Your task to perform on an android device: Open Wikipedia Image 0: 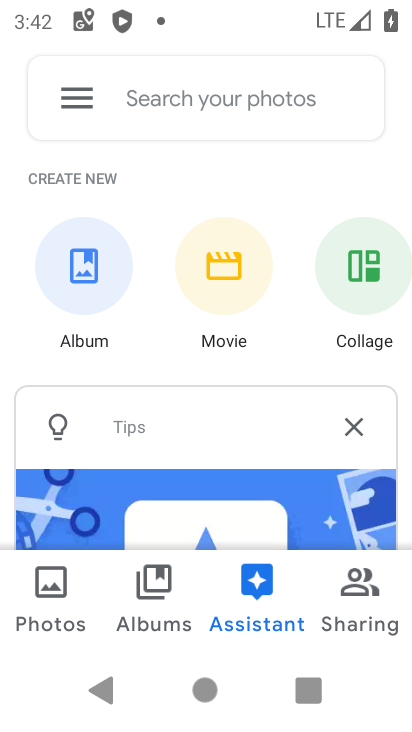
Step 0: press home button
Your task to perform on an android device: Open Wikipedia Image 1: 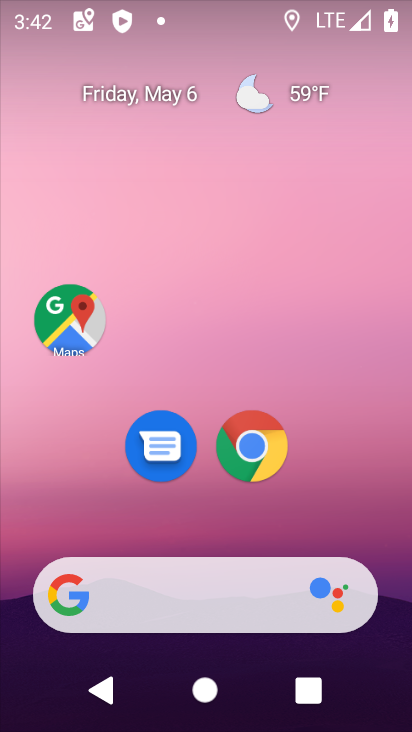
Step 1: drag from (339, 501) to (339, 142)
Your task to perform on an android device: Open Wikipedia Image 2: 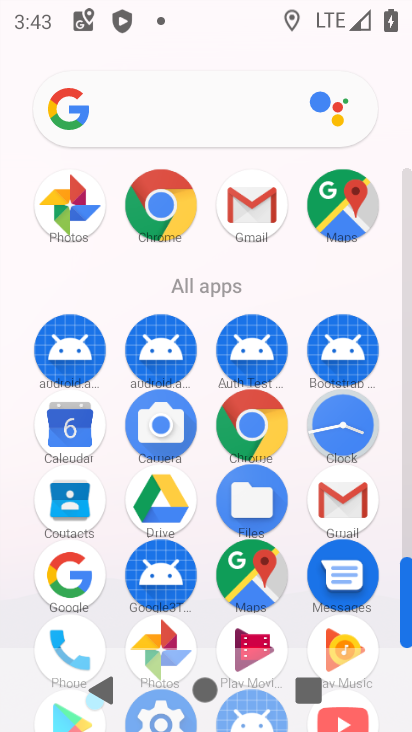
Step 2: click (167, 198)
Your task to perform on an android device: Open Wikipedia Image 3: 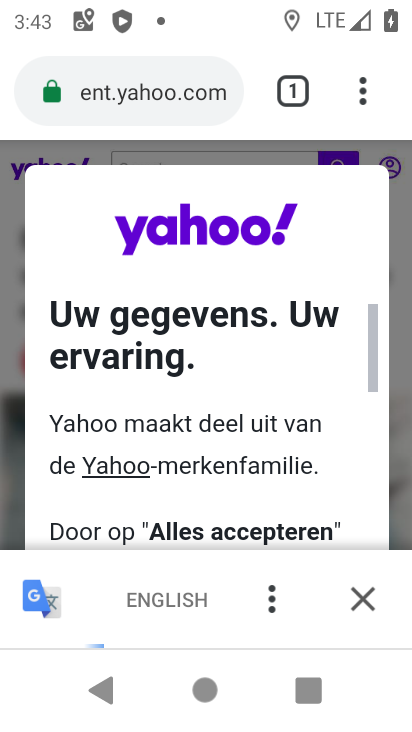
Step 3: click (161, 98)
Your task to perform on an android device: Open Wikipedia Image 4: 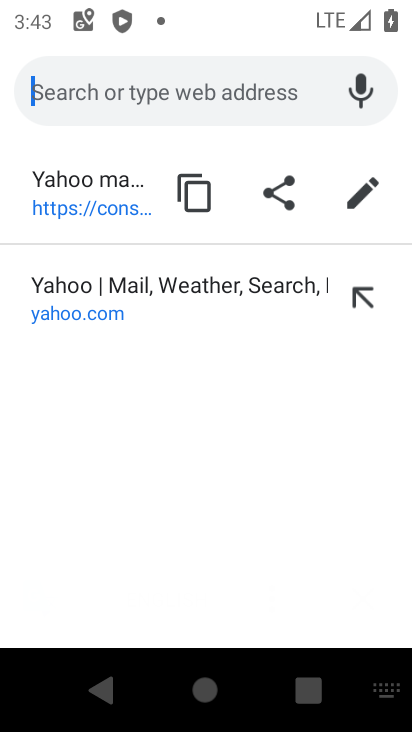
Step 4: type "wikipedia"
Your task to perform on an android device: Open Wikipedia Image 5: 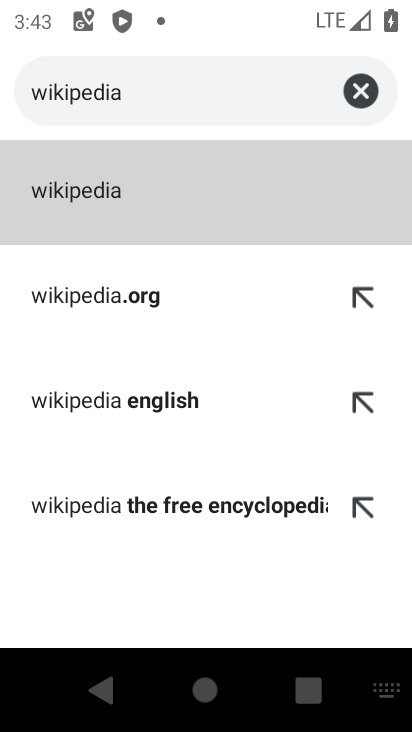
Step 5: click (62, 195)
Your task to perform on an android device: Open Wikipedia Image 6: 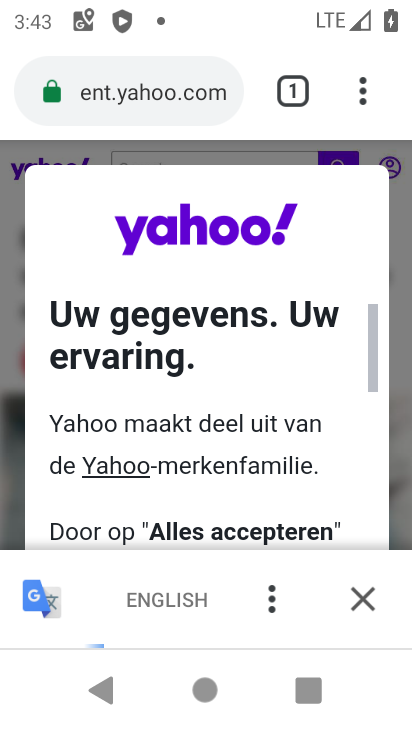
Step 6: click (293, 95)
Your task to perform on an android device: Open Wikipedia Image 7: 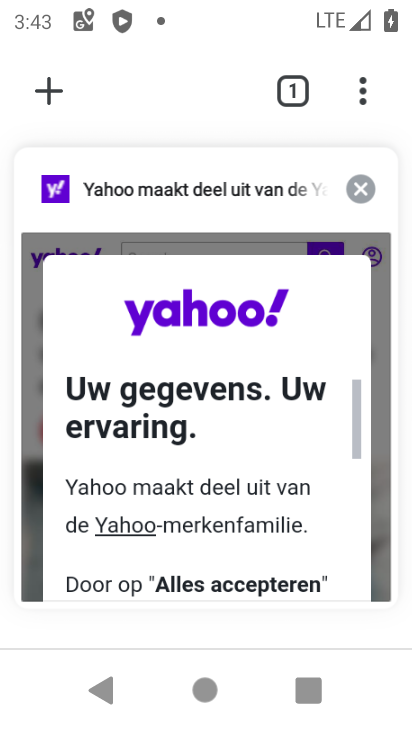
Step 7: click (49, 86)
Your task to perform on an android device: Open Wikipedia Image 8: 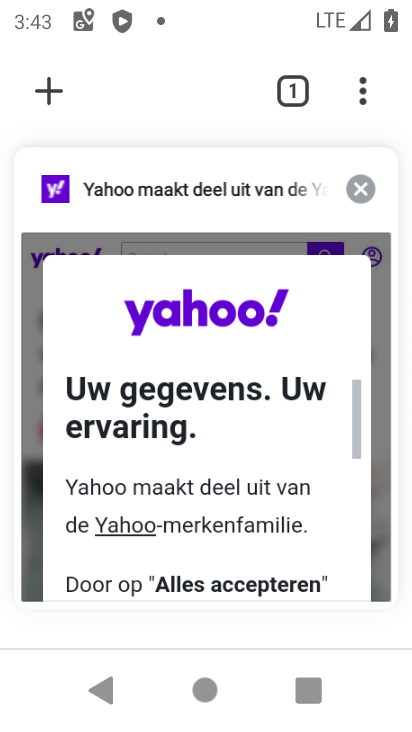
Step 8: click (53, 97)
Your task to perform on an android device: Open Wikipedia Image 9: 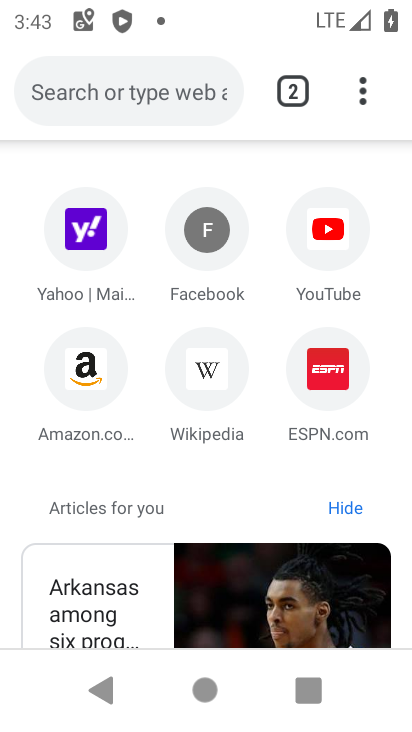
Step 9: click (125, 94)
Your task to perform on an android device: Open Wikipedia Image 10: 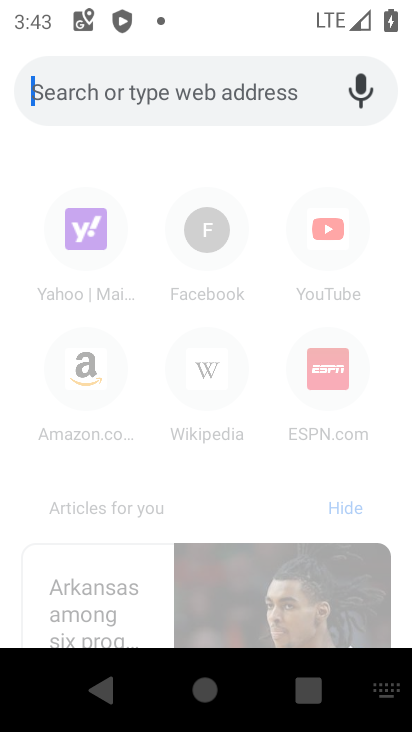
Step 10: type "wikipedia"
Your task to perform on an android device: Open Wikipedia Image 11: 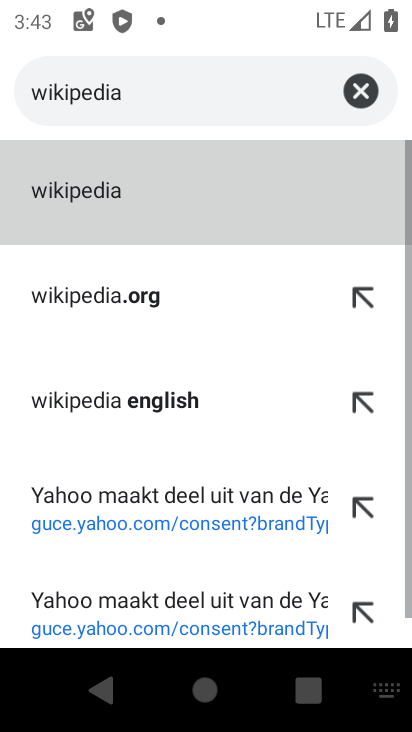
Step 11: click (97, 188)
Your task to perform on an android device: Open Wikipedia Image 12: 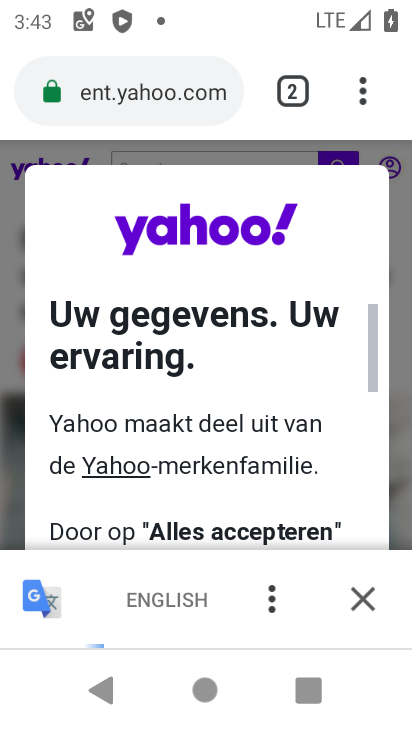
Step 12: task complete